Your task to perform on an android device: Open battery settings Image 0: 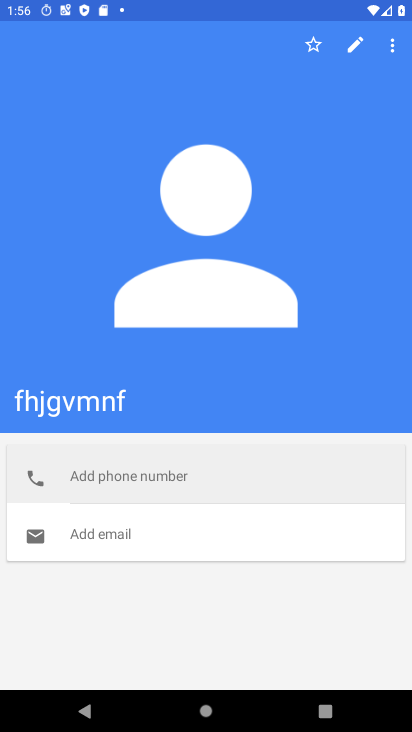
Step 0: press home button
Your task to perform on an android device: Open battery settings Image 1: 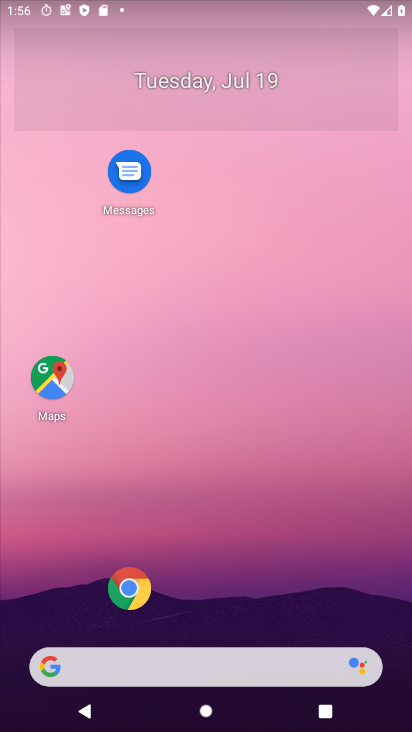
Step 1: drag from (5, 707) to (177, 79)
Your task to perform on an android device: Open battery settings Image 2: 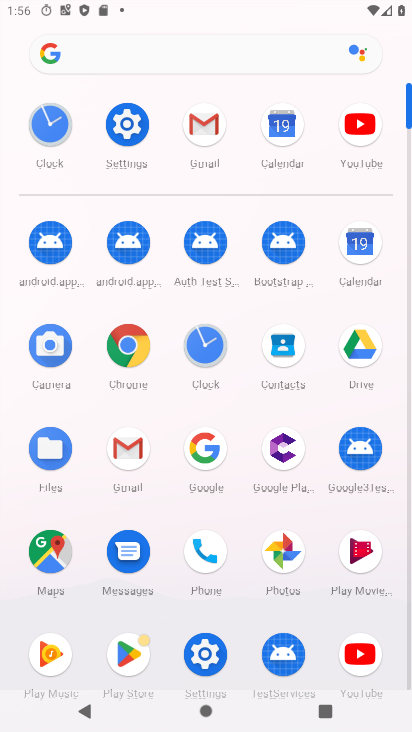
Step 2: click (223, 656)
Your task to perform on an android device: Open battery settings Image 3: 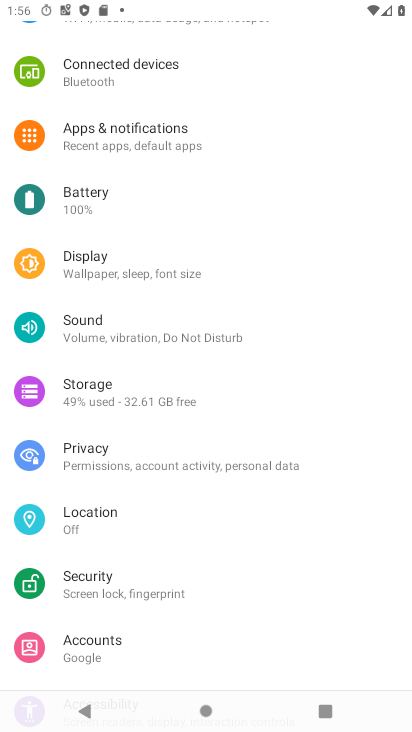
Step 3: click (96, 203)
Your task to perform on an android device: Open battery settings Image 4: 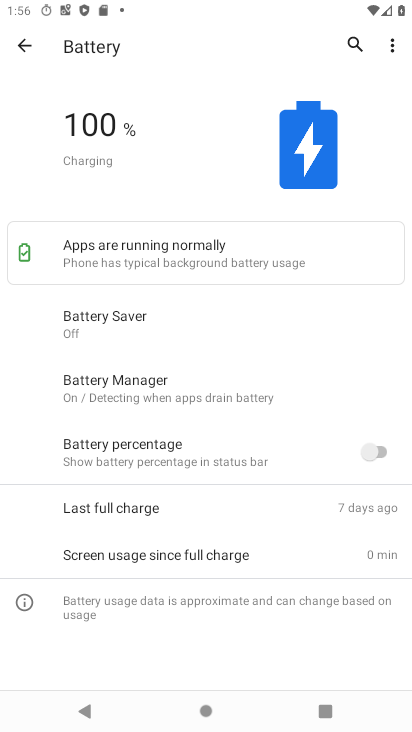
Step 4: task complete